Your task to perform on an android device: visit the assistant section in the google photos Image 0: 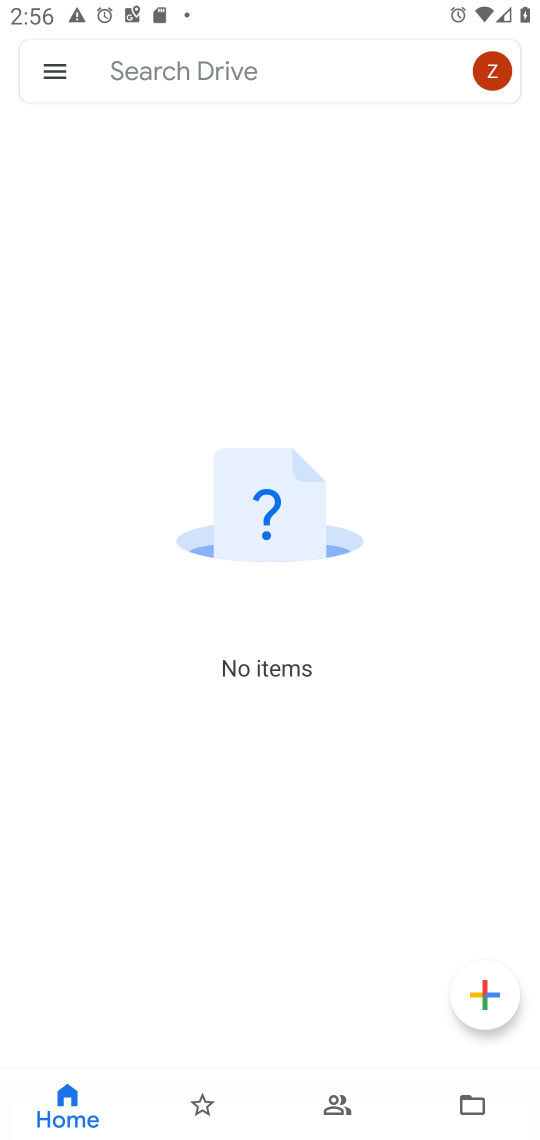
Step 0: press home button
Your task to perform on an android device: visit the assistant section in the google photos Image 1: 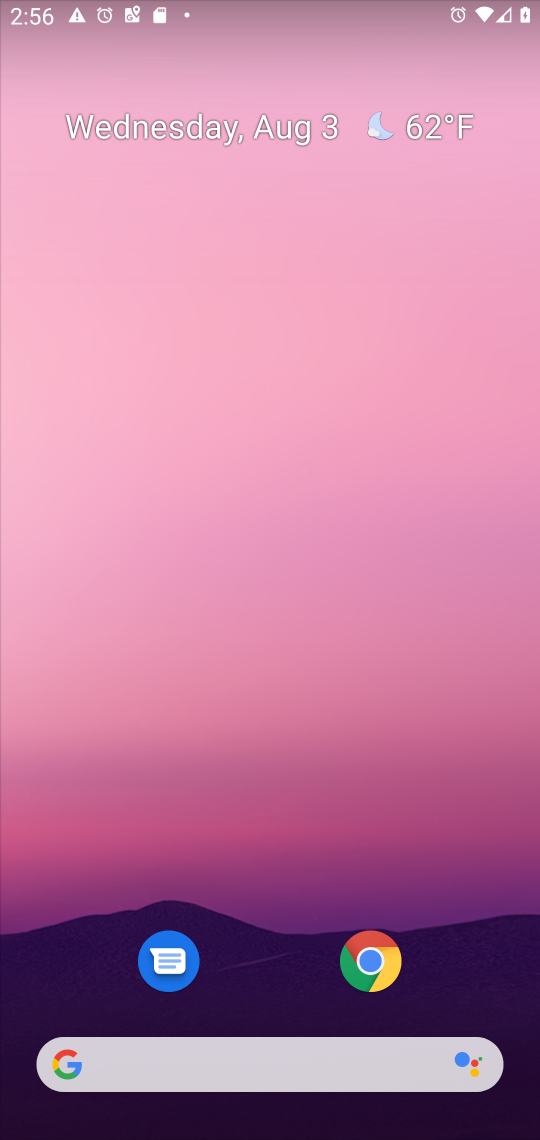
Step 1: drag from (280, 999) to (289, 28)
Your task to perform on an android device: visit the assistant section in the google photos Image 2: 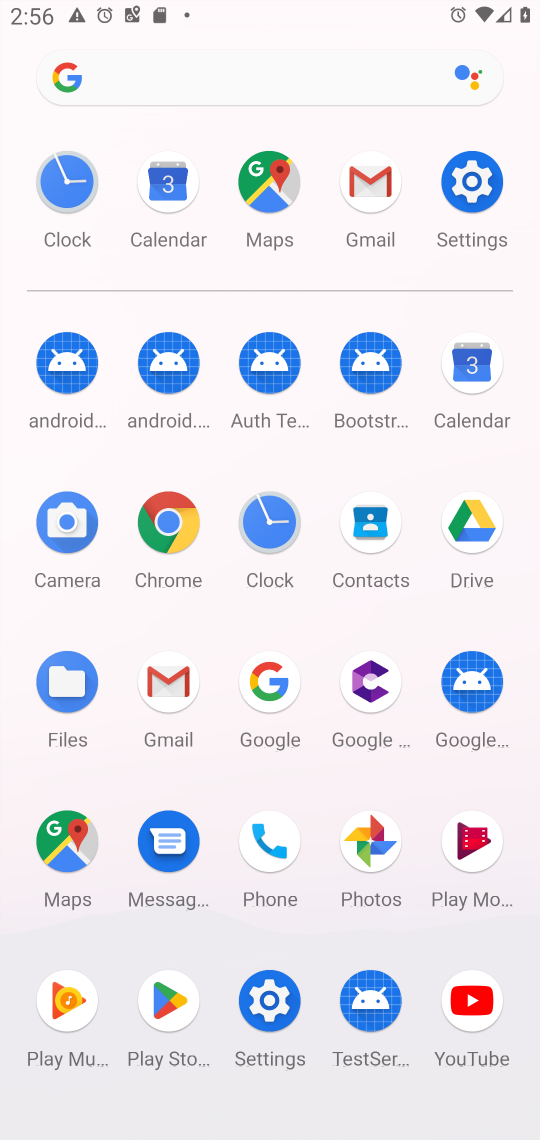
Step 2: click (365, 842)
Your task to perform on an android device: visit the assistant section in the google photos Image 3: 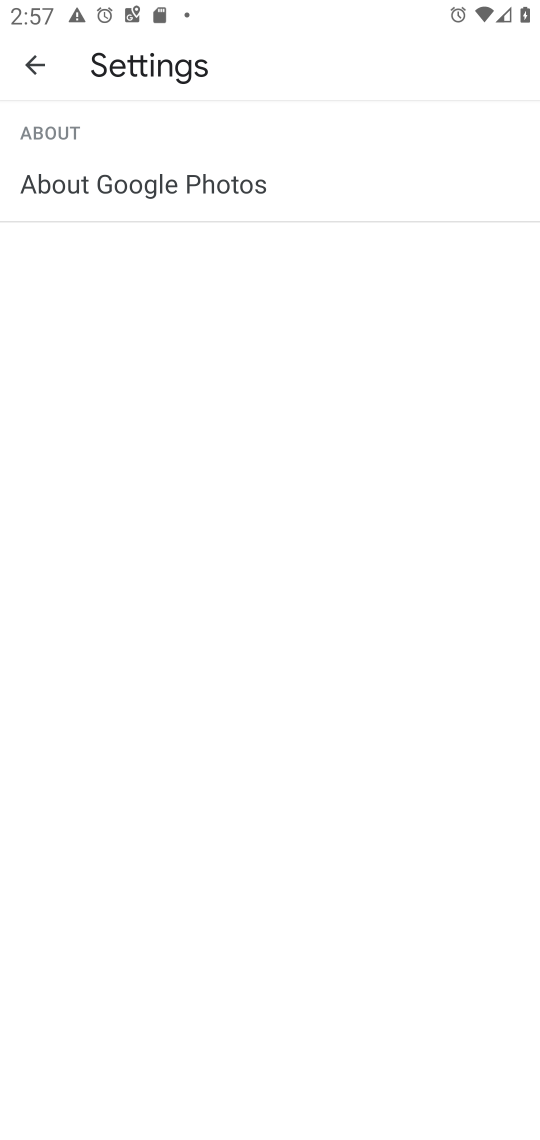
Step 3: click (33, 62)
Your task to perform on an android device: visit the assistant section in the google photos Image 4: 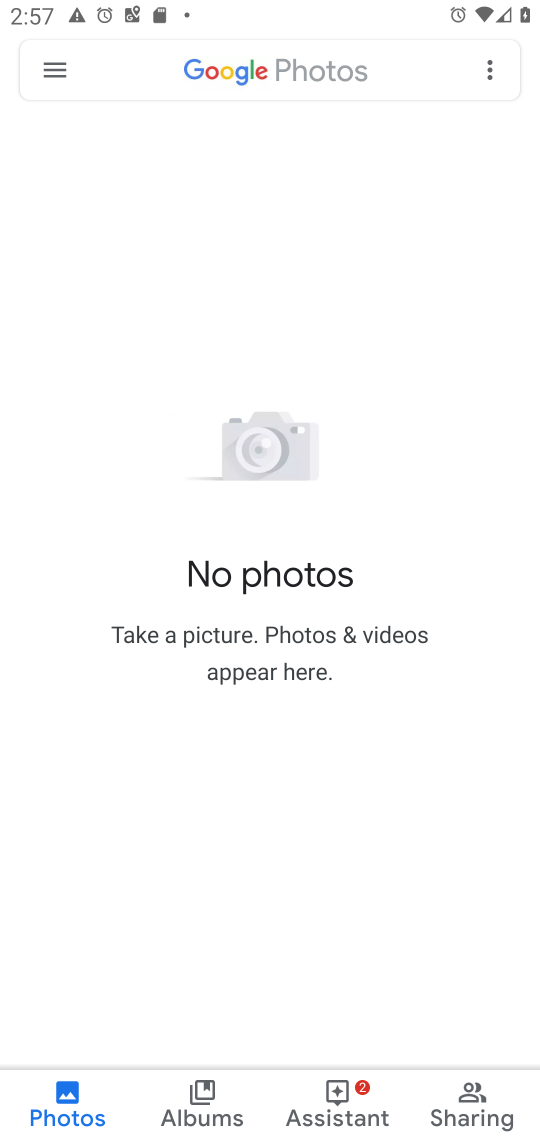
Step 4: click (333, 1104)
Your task to perform on an android device: visit the assistant section in the google photos Image 5: 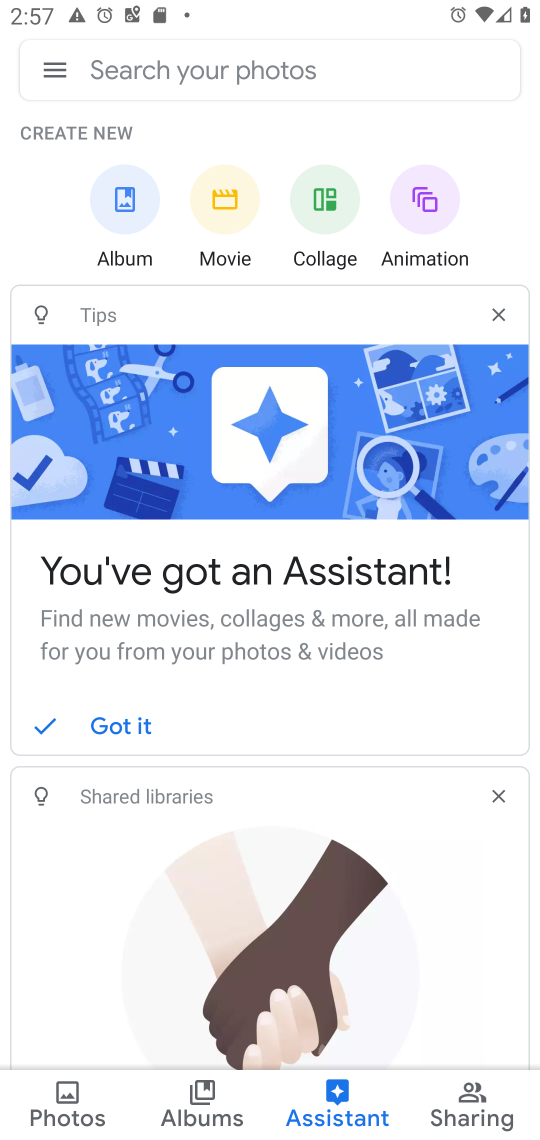
Step 5: task complete